Your task to perform on an android device: Search for "bose soundlink" on walmart.com, select the first entry, and add it to the cart. Image 0: 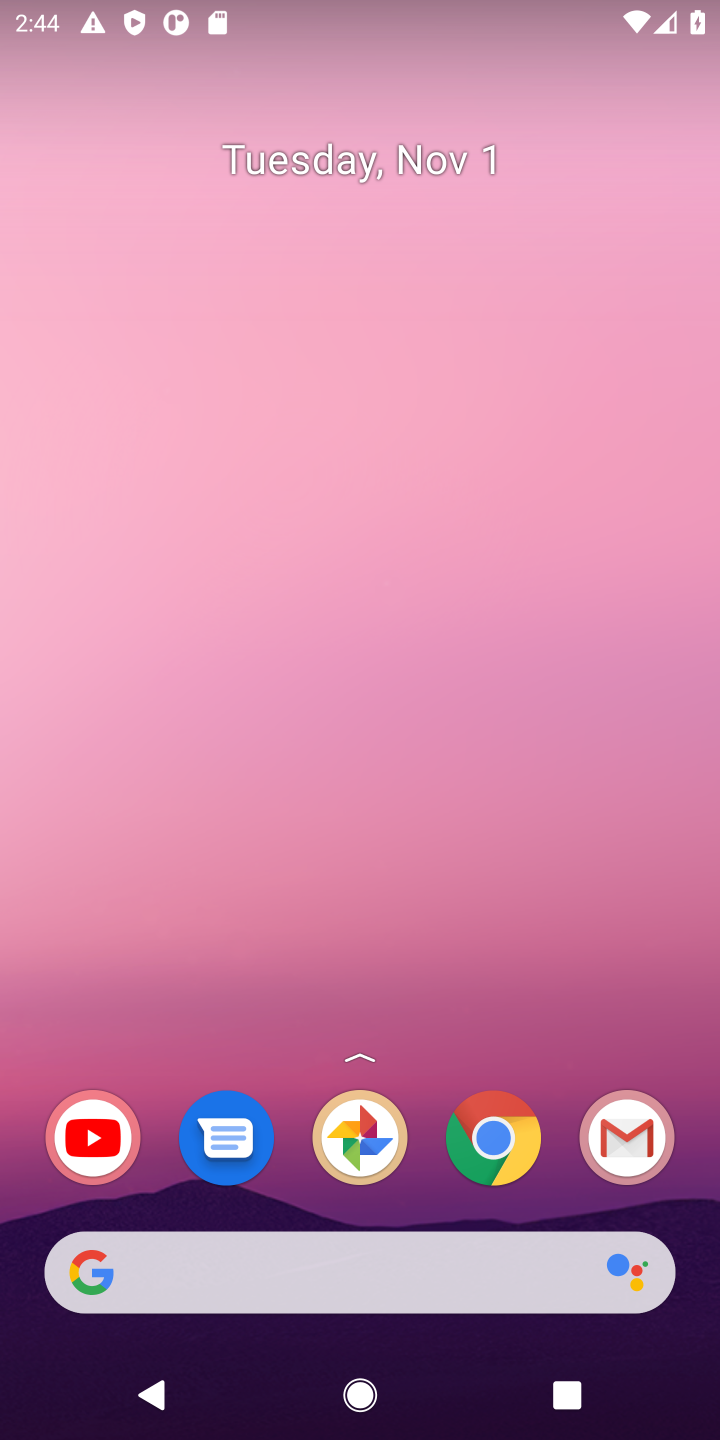
Step 0: click (365, 101)
Your task to perform on an android device: Search for "bose soundlink" on walmart.com, select the first entry, and add it to the cart. Image 1: 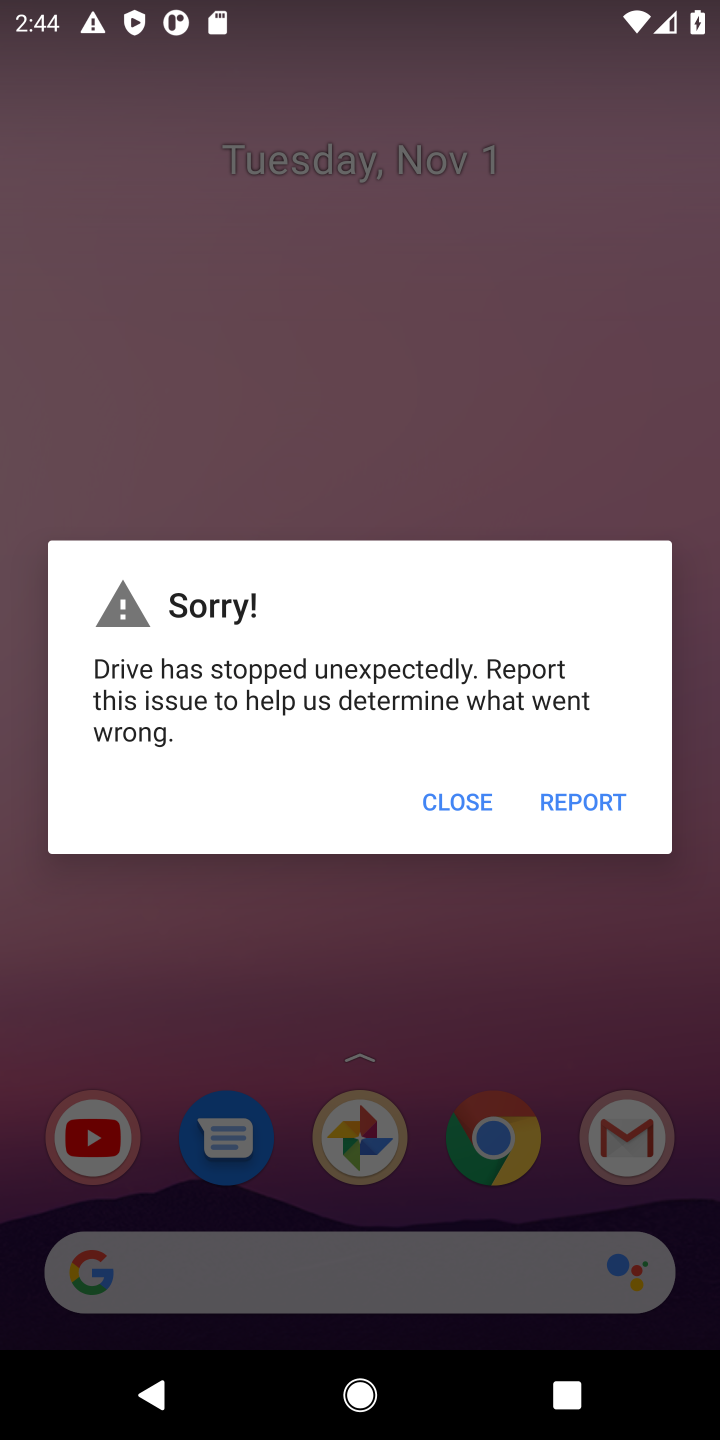
Step 1: click (455, 800)
Your task to perform on an android device: Search for "bose soundlink" on walmart.com, select the first entry, and add it to the cart. Image 2: 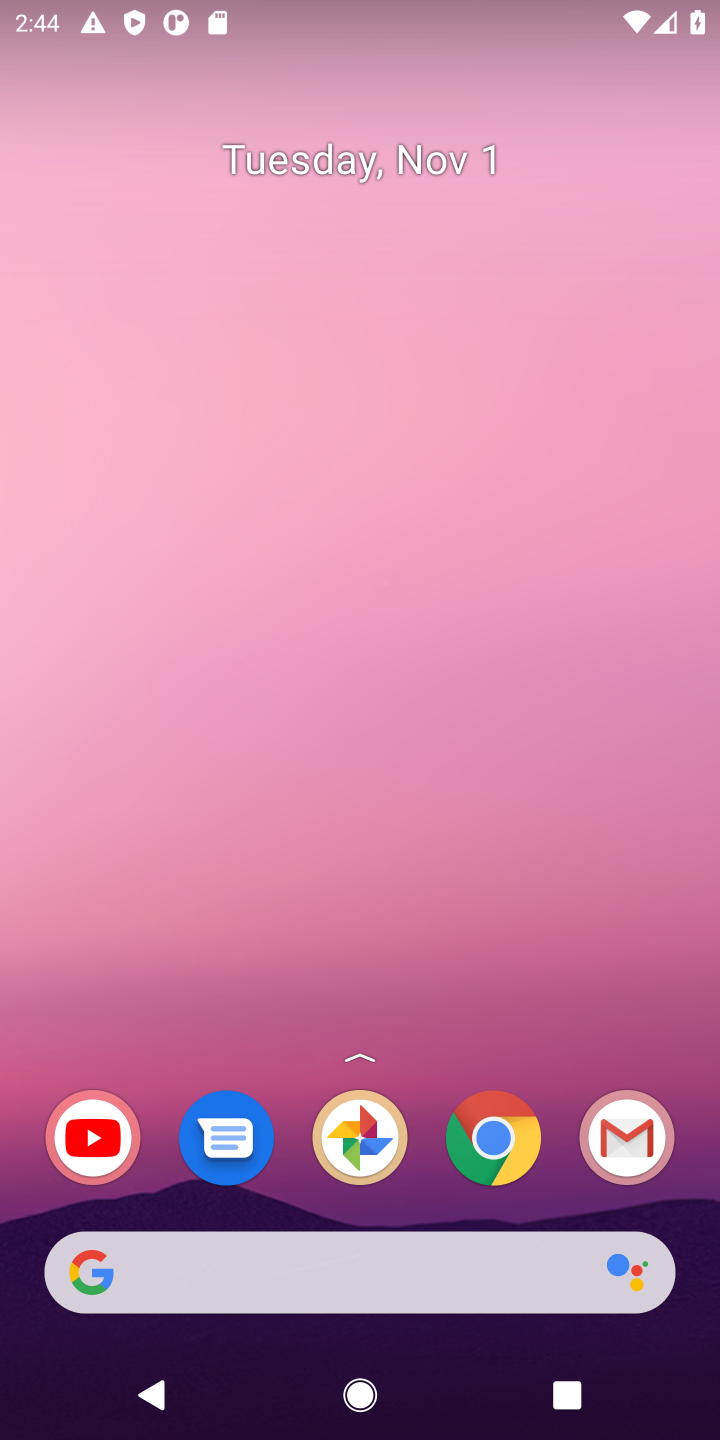
Step 2: click (491, 1132)
Your task to perform on an android device: Search for "bose soundlink" on walmart.com, select the first entry, and add it to the cart. Image 3: 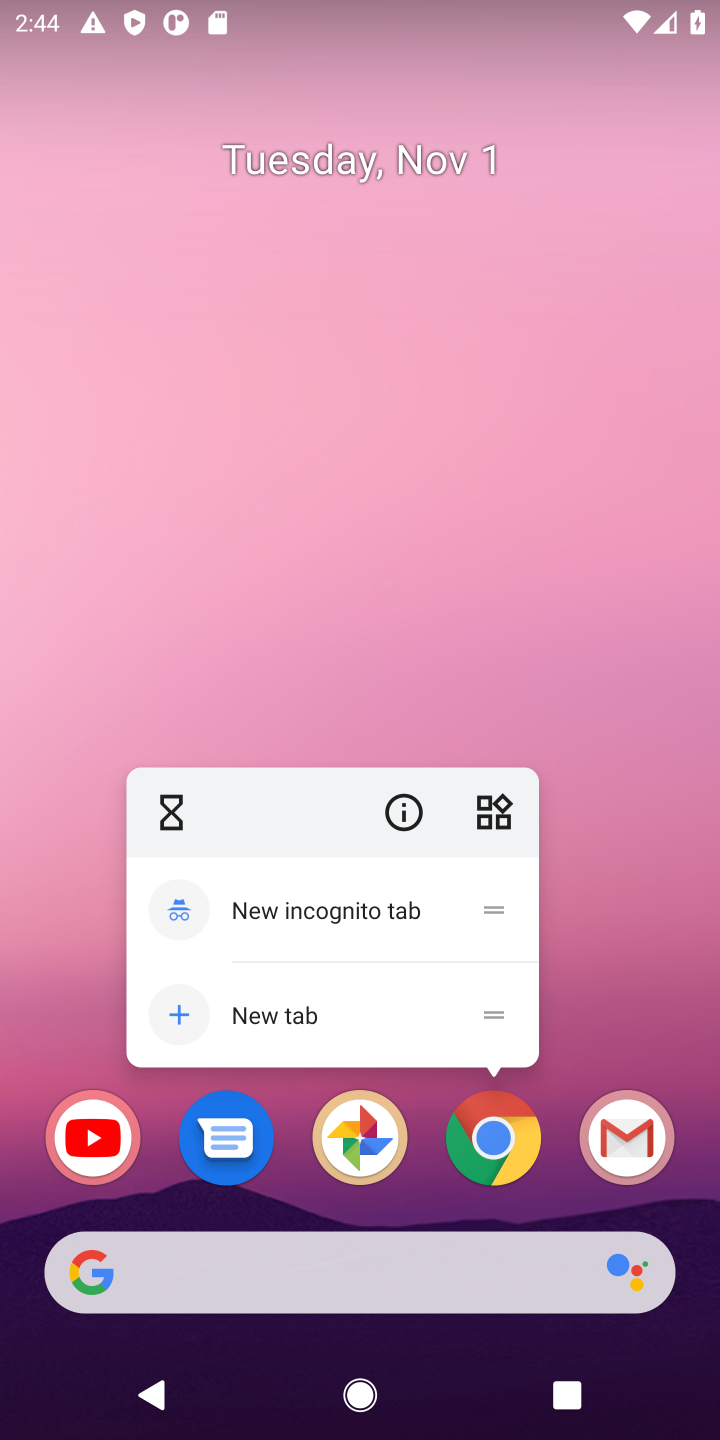
Step 3: click (491, 1132)
Your task to perform on an android device: Search for "bose soundlink" on walmart.com, select the first entry, and add it to the cart. Image 4: 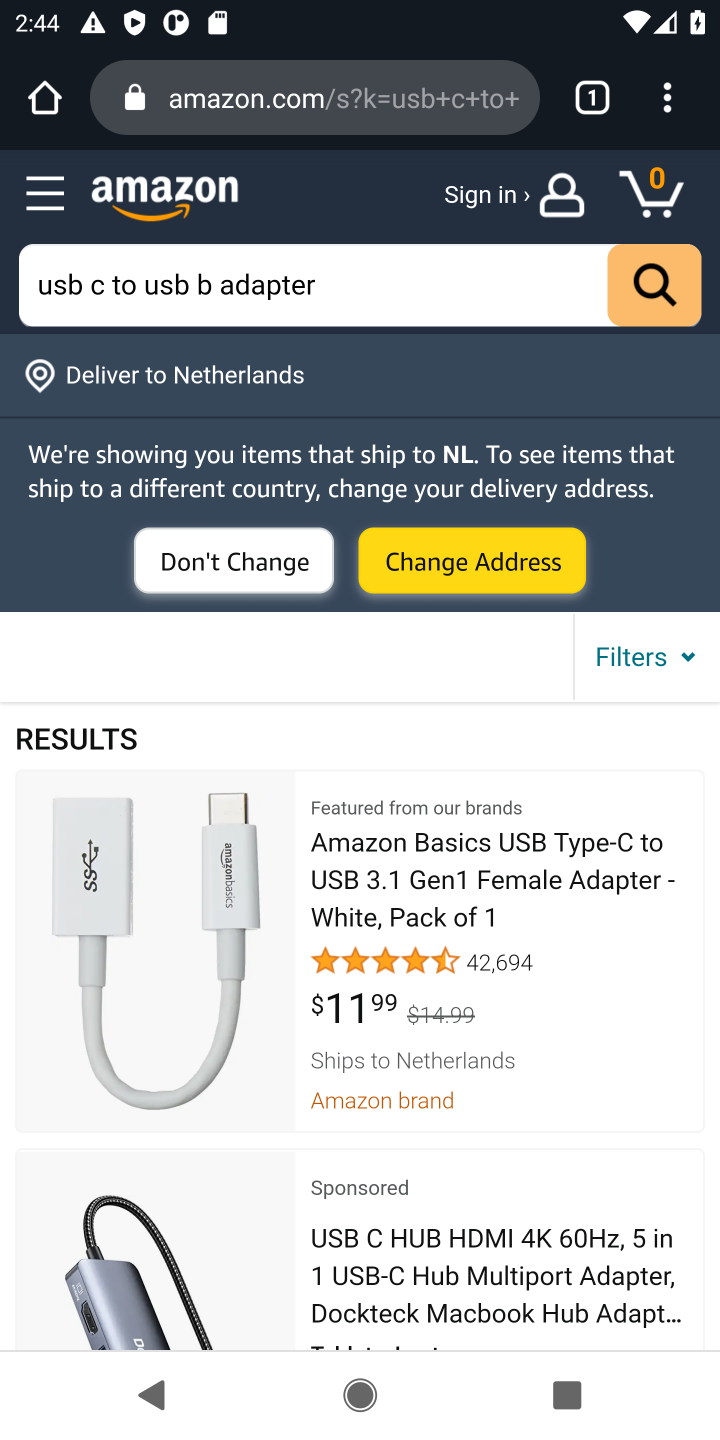
Step 4: click (346, 105)
Your task to perform on an android device: Search for "bose soundlink" on walmart.com, select the first entry, and add it to the cart. Image 5: 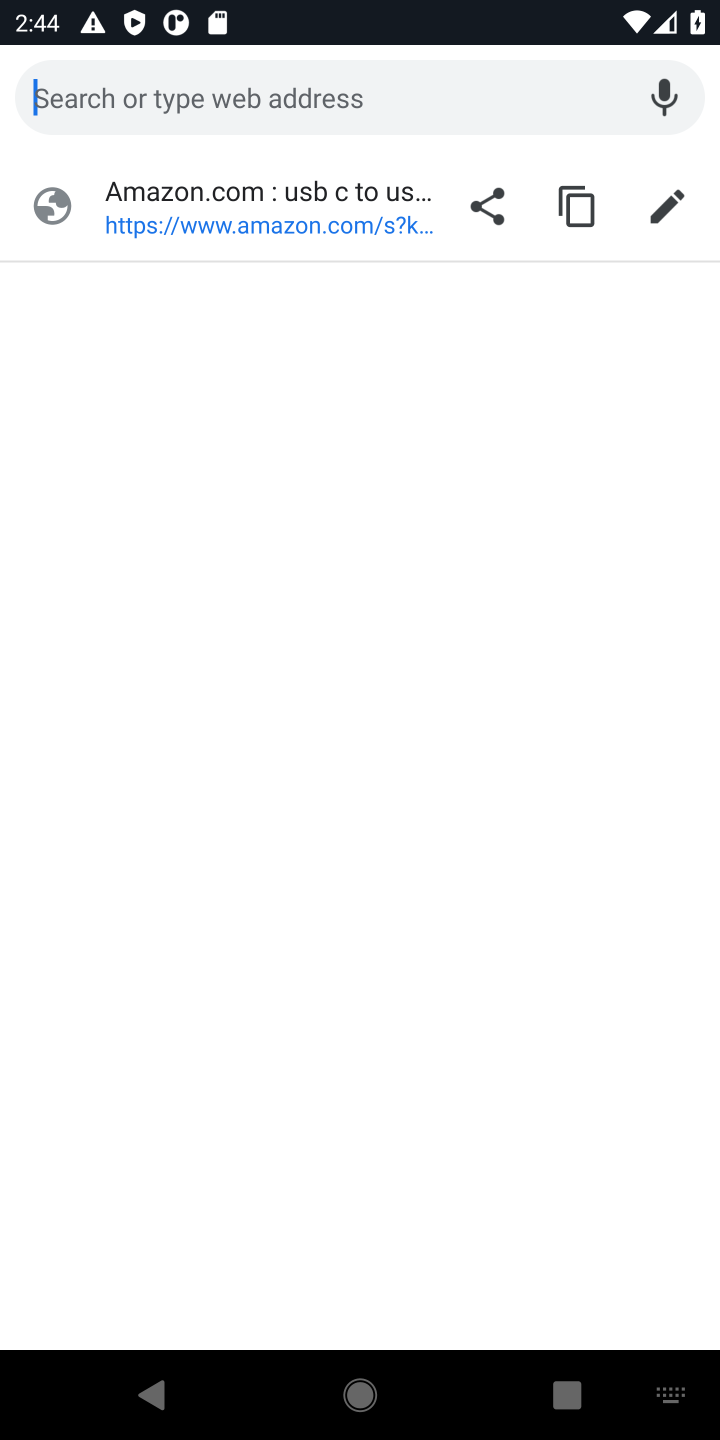
Step 5: type "walmart.com"
Your task to perform on an android device: Search for "bose soundlink" on walmart.com, select the first entry, and add it to the cart. Image 6: 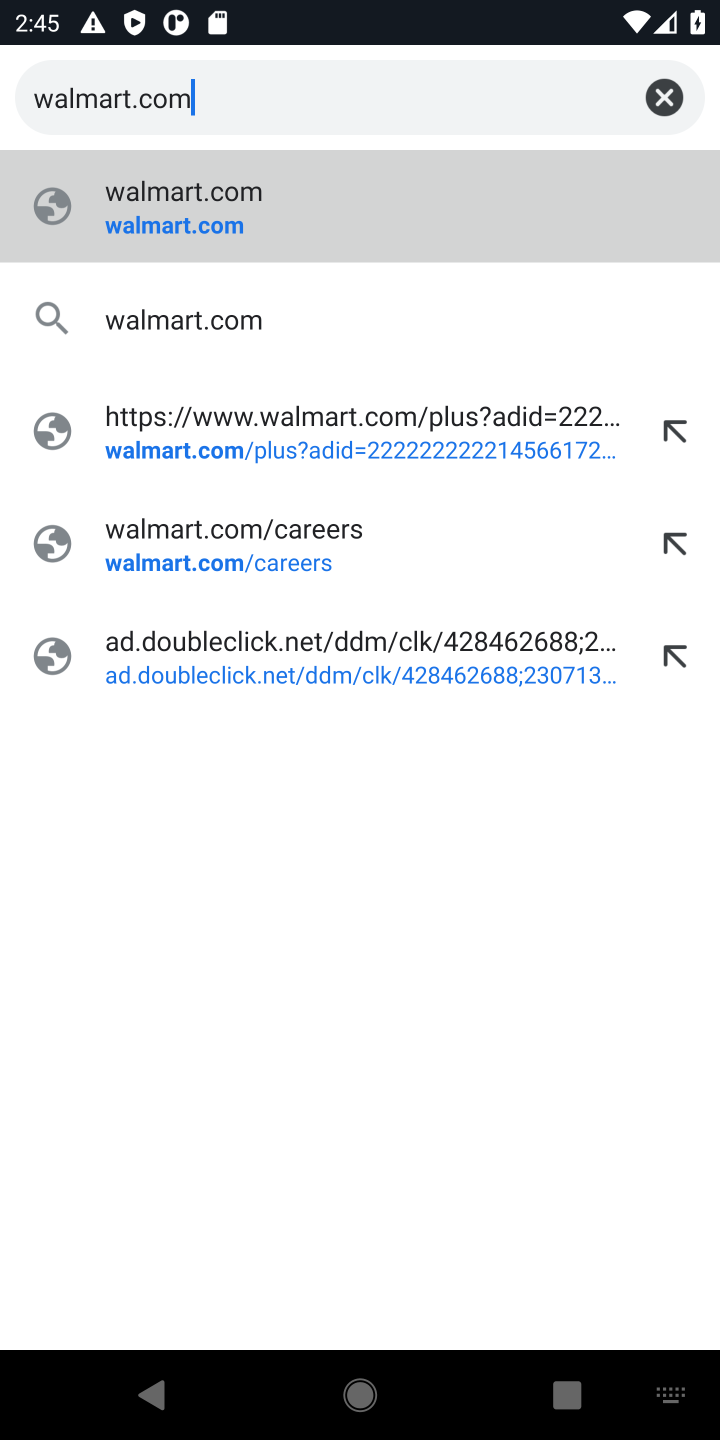
Step 6: click (274, 194)
Your task to perform on an android device: Search for "bose soundlink" on walmart.com, select the first entry, and add it to the cart. Image 7: 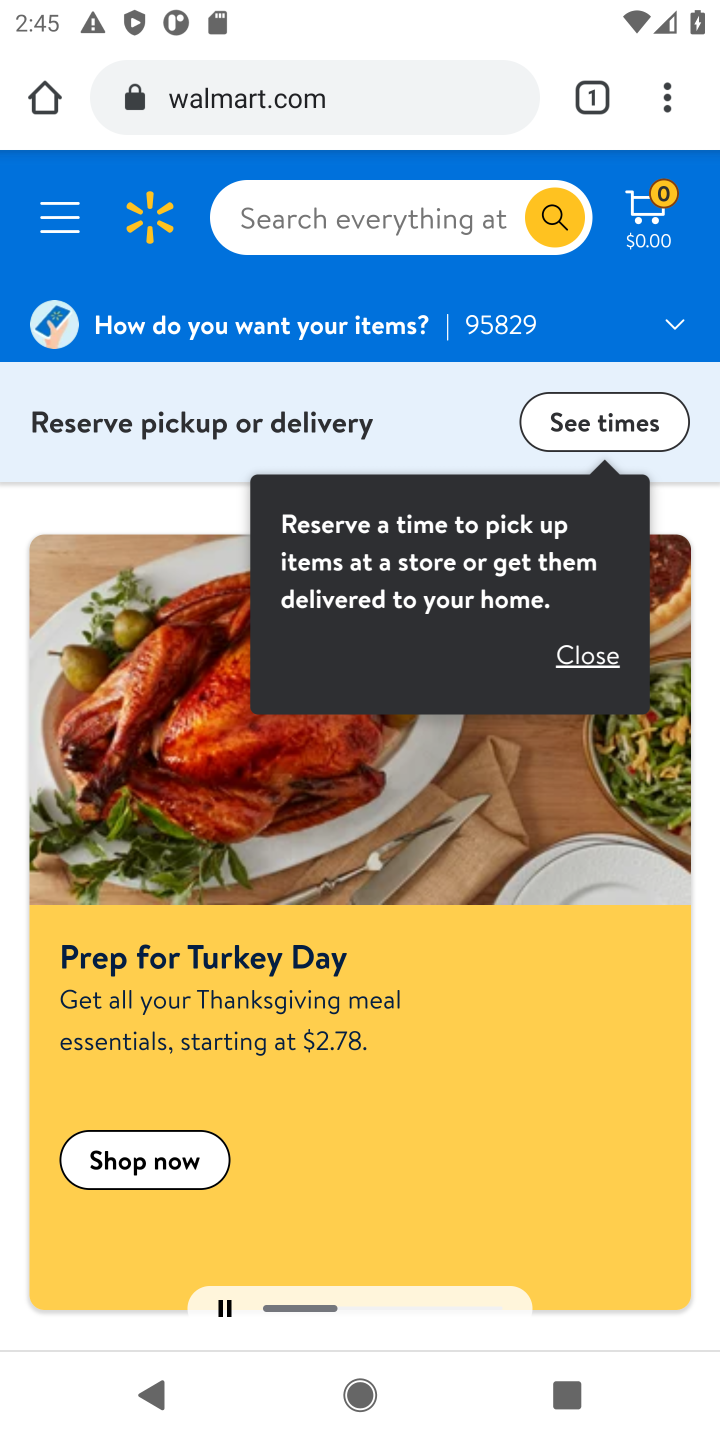
Step 7: click (297, 218)
Your task to perform on an android device: Search for "bose soundlink" on walmart.com, select the first entry, and add it to the cart. Image 8: 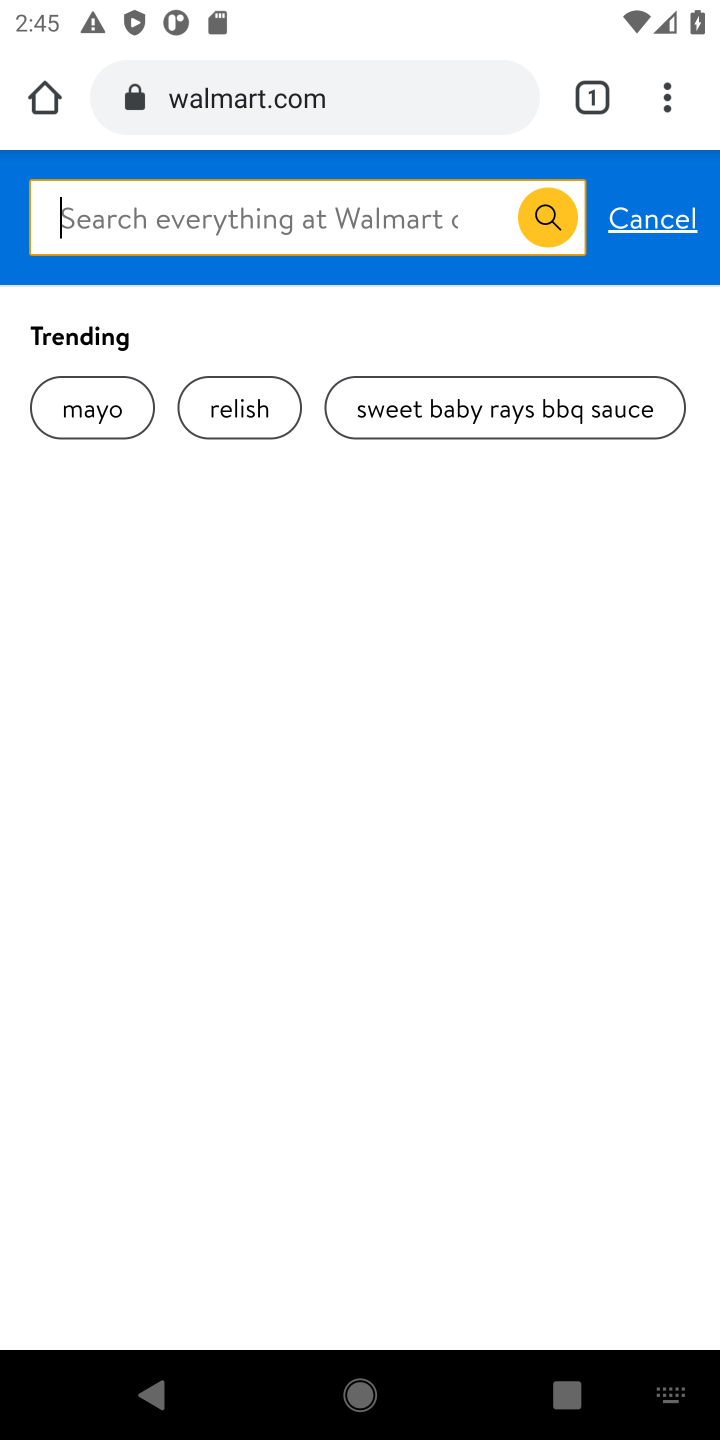
Step 8: type "bose soundlink"
Your task to perform on an android device: Search for "bose soundlink" on walmart.com, select the first entry, and add it to the cart. Image 9: 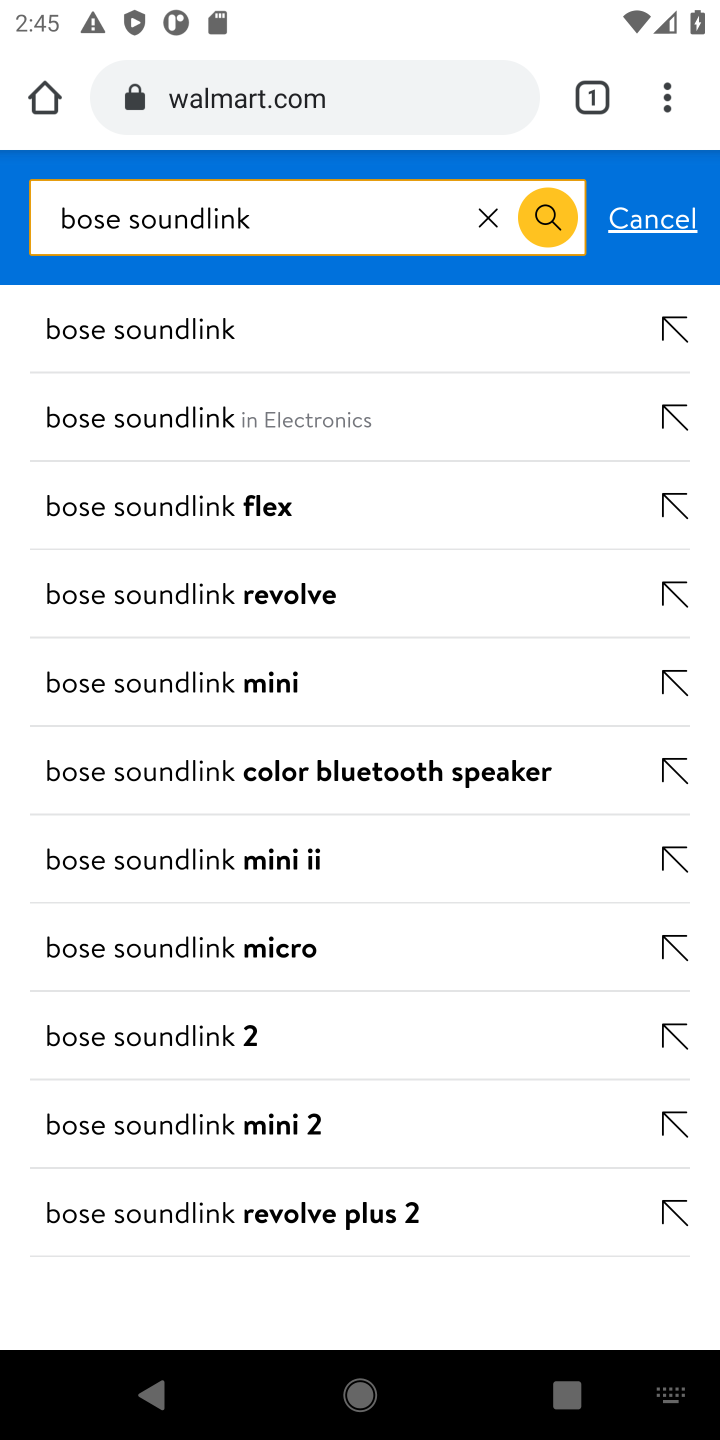
Step 9: click (553, 219)
Your task to perform on an android device: Search for "bose soundlink" on walmart.com, select the first entry, and add it to the cart. Image 10: 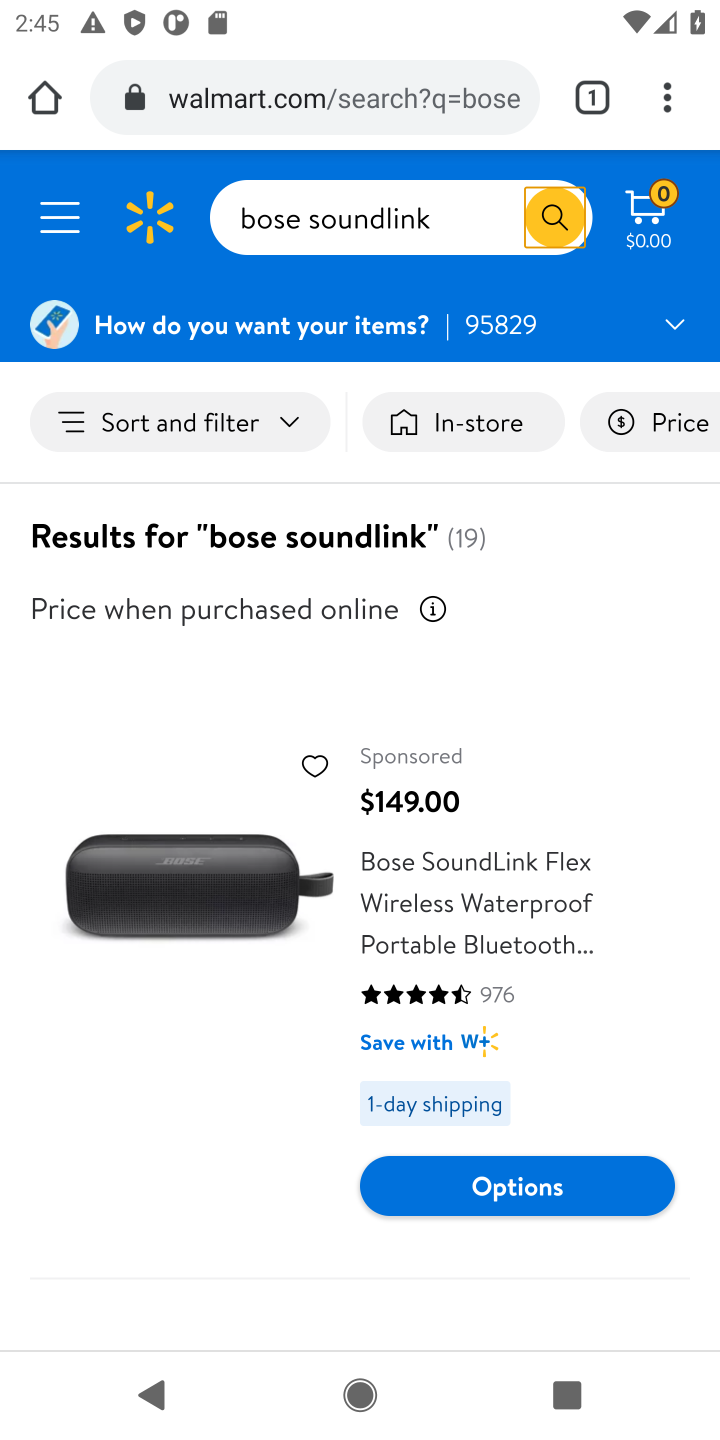
Step 10: click (420, 842)
Your task to perform on an android device: Search for "bose soundlink" on walmart.com, select the first entry, and add it to the cart. Image 11: 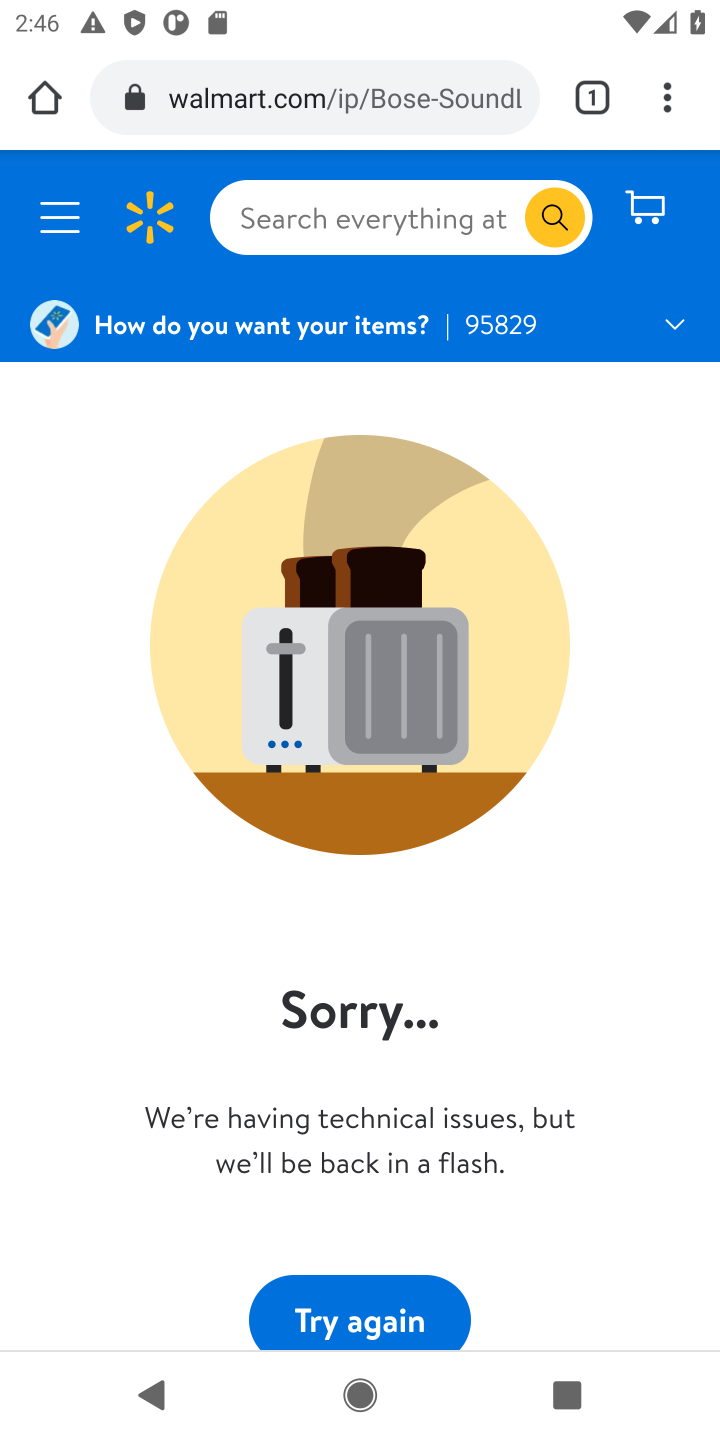
Step 11: task complete